Your task to perform on an android device: Turn on the flashlight Image 0: 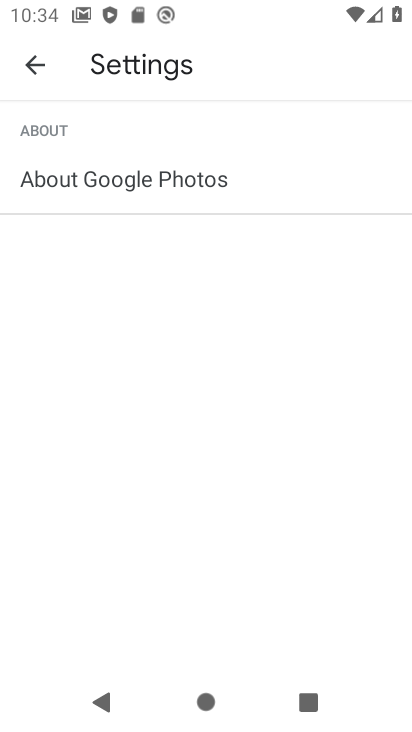
Step 0: drag from (291, 9) to (339, 544)
Your task to perform on an android device: Turn on the flashlight Image 1: 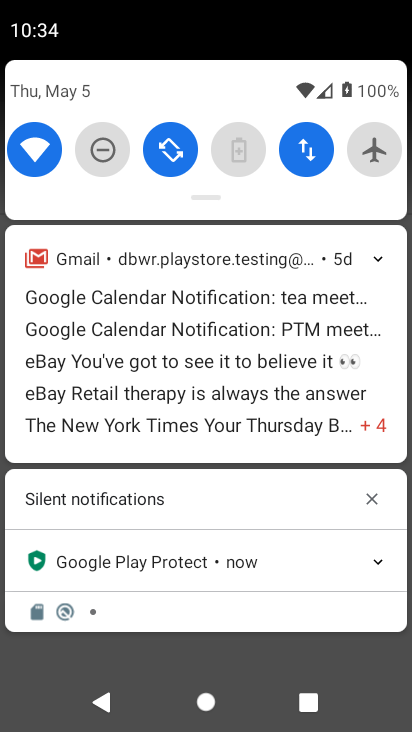
Step 1: drag from (255, 194) to (267, 569)
Your task to perform on an android device: Turn on the flashlight Image 2: 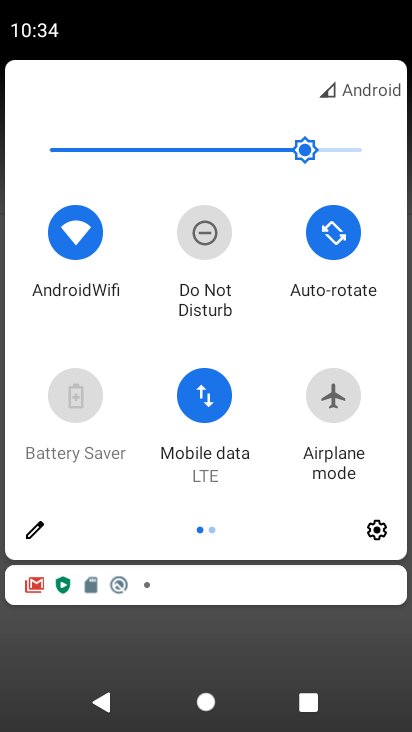
Step 2: click (35, 531)
Your task to perform on an android device: Turn on the flashlight Image 3: 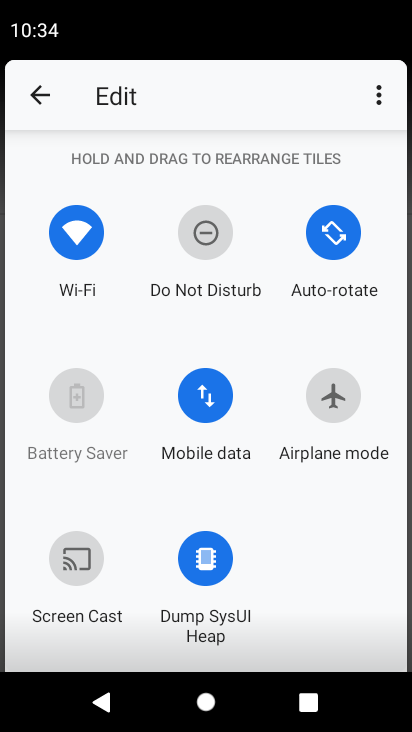
Step 3: task complete